Your task to perform on an android device: Open Google Maps Image 0: 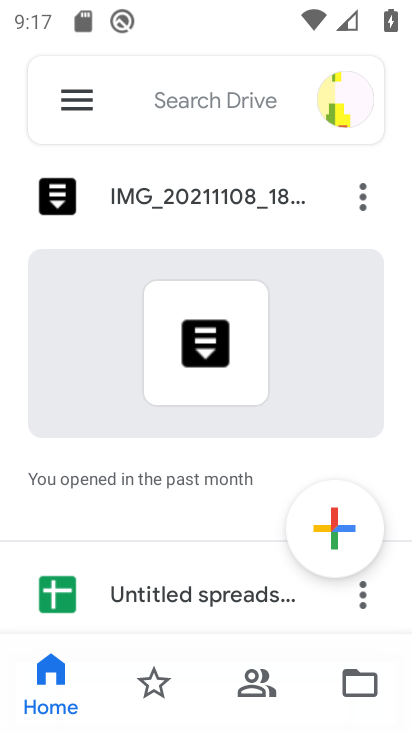
Step 0: drag from (187, 510) to (279, 217)
Your task to perform on an android device: Open Google Maps Image 1: 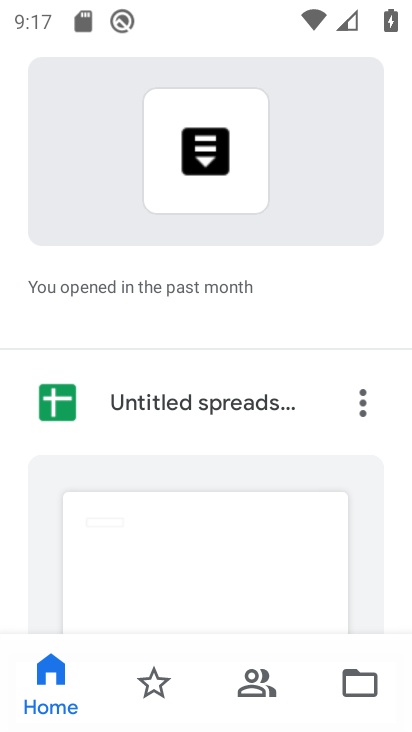
Step 1: drag from (110, 156) to (181, 667)
Your task to perform on an android device: Open Google Maps Image 2: 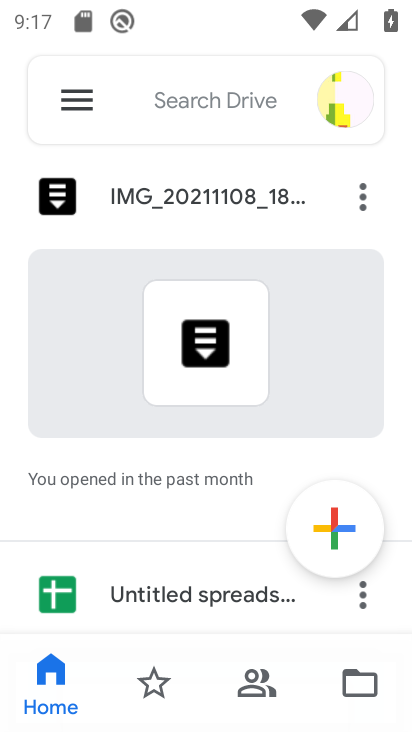
Step 2: press home button
Your task to perform on an android device: Open Google Maps Image 3: 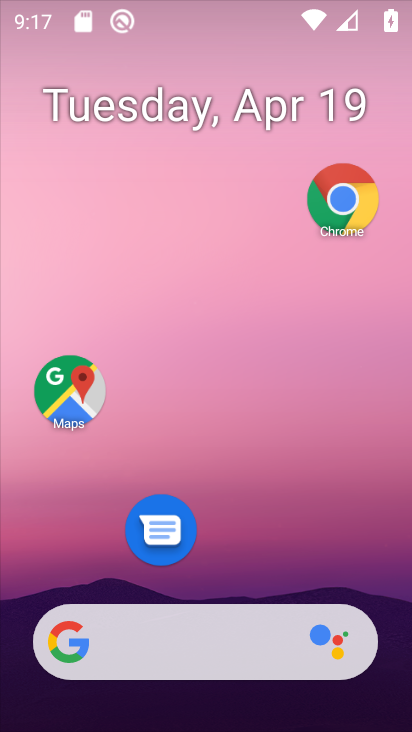
Step 3: drag from (205, 572) to (269, 1)
Your task to perform on an android device: Open Google Maps Image 4: 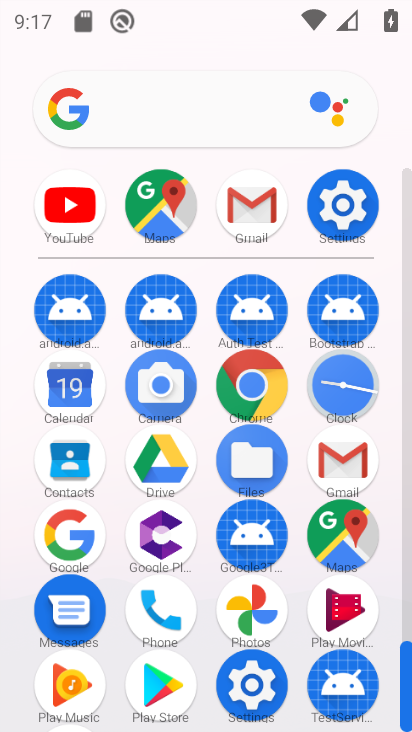
Step 4: drag from (214, 602) to (217, 208)
Your task to perform on an android device: Open Google Maps Image 5: 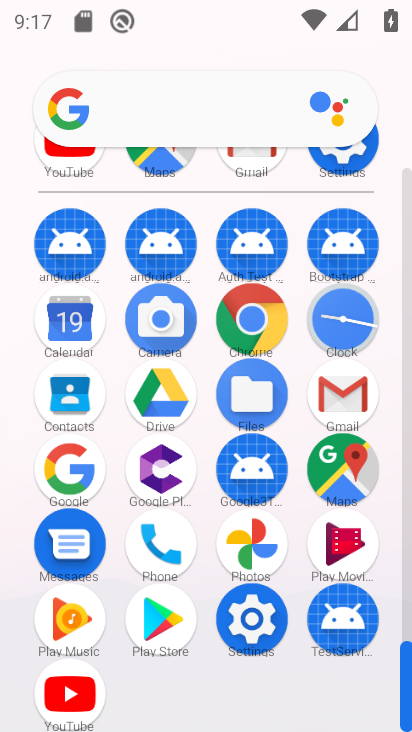
Step 5: click (338, 475)
Your task to perform on an android device: Open Google Maps Image 6: 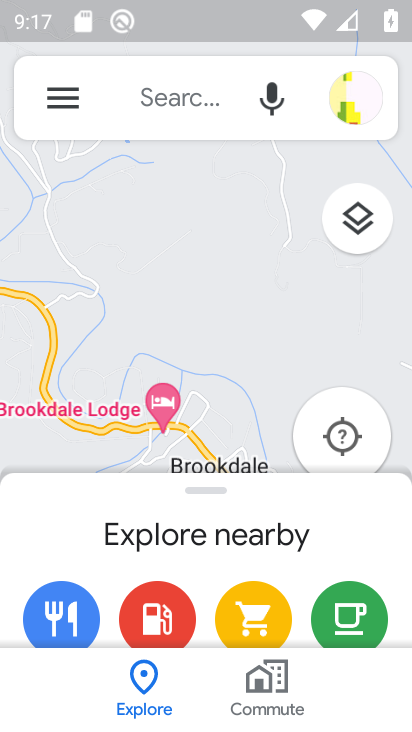
Step 6: drag from (216, 520) to (356, 164)
Your task to perform on an android device: Open Google Maps Image 7: 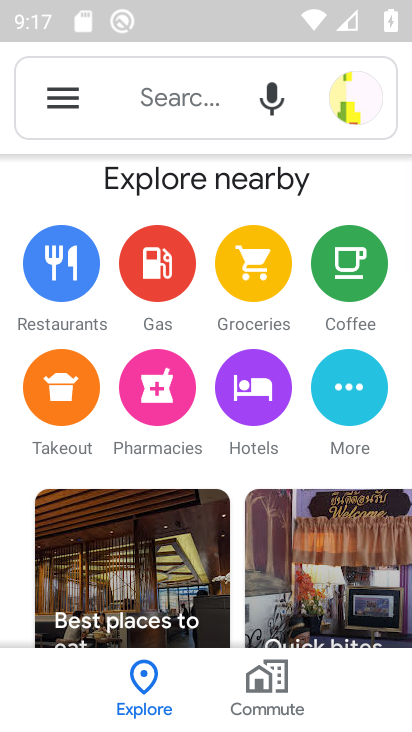
Step 7: drag from (235, 234) to (163, 709)
Your task to perform on an android device: Open Google Maps Image 8: 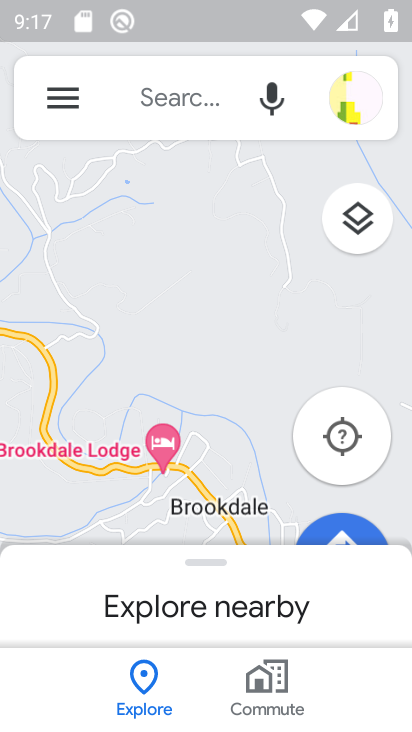
Step 8: drag from (224, 314) to (361, 703)
Your task to perform on an android device: Open Google Maps Image 9: 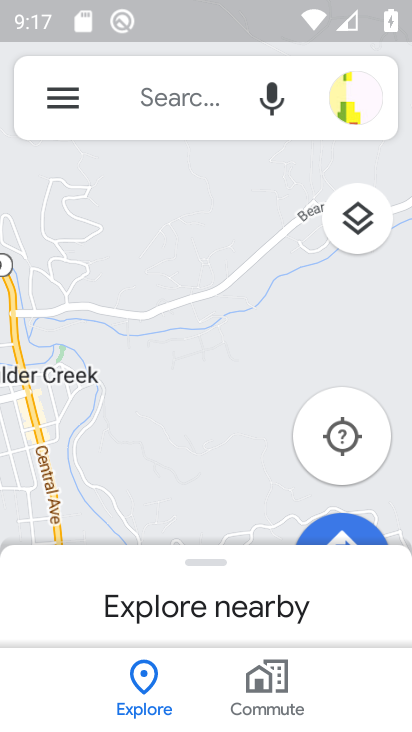
Step 9: drag from (193, 274) to (411, 307)
Your task to perform on an android device: Open Google Maps Image 10: 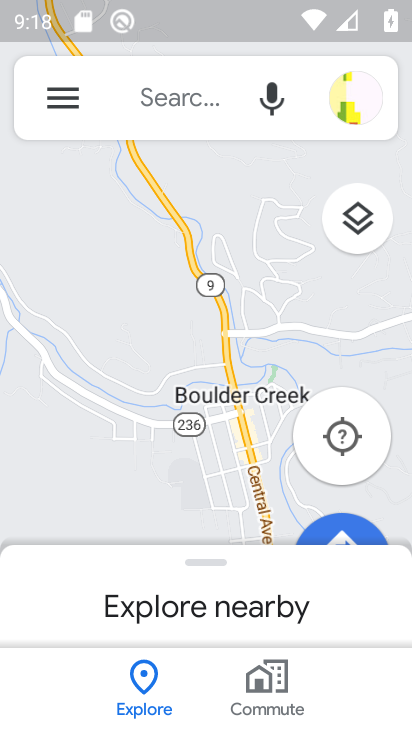
Step 10: drag from (162, 217) to (282, 445)
Your task to perform on an android device: Open Google Maps Image 11: 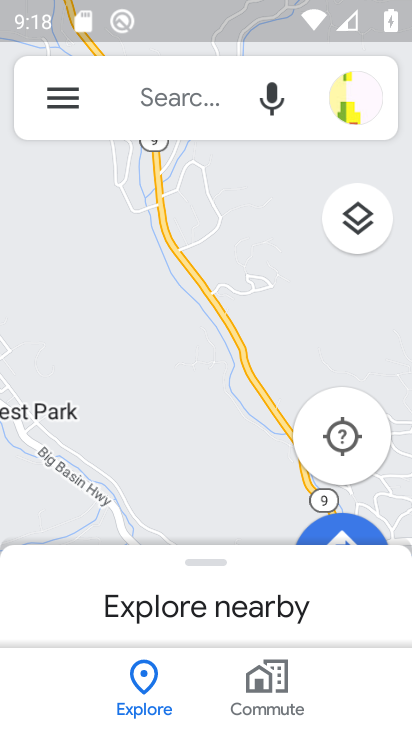
Step 11: drag from (185, 286) to (287, 511)
Your task to perform on an android device: Open Google Maps Image 12: 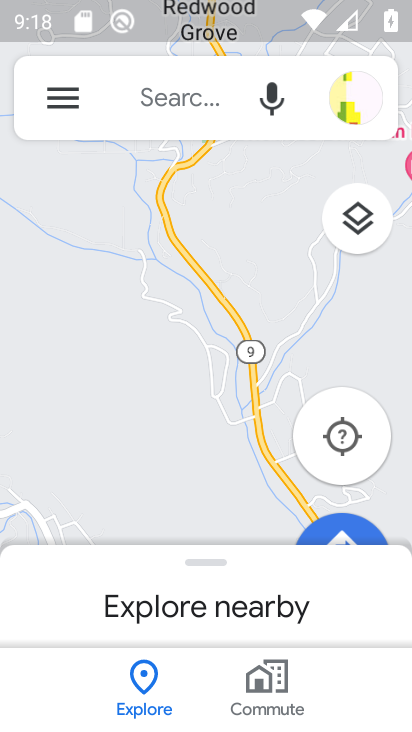
Step 12: drag from (229, 257) to (301, 452)
Your task to perform on an android device: Open Google Maps Image 13: 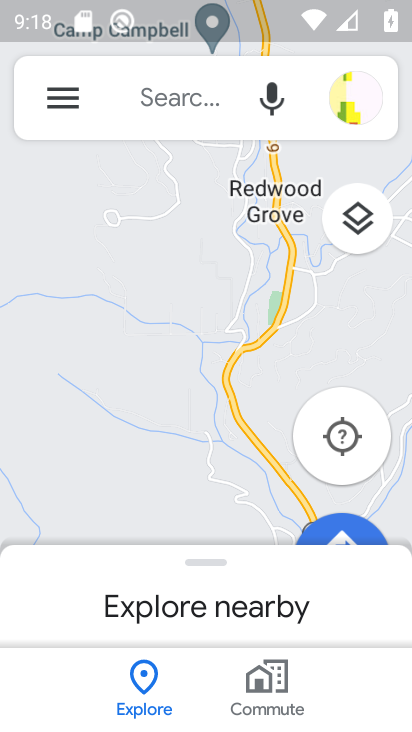
Step 13: drag from (294, 219) to (241, 523)
Your task to perform on an android device: Open Google Maps Image 14: 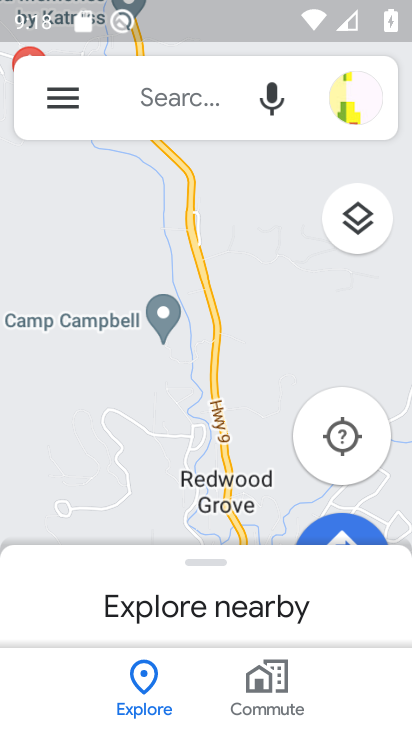
Step 14: drag from (182, 182) to (252, 526)
Your task to perform on an android device: Open Google Maps Image 15: 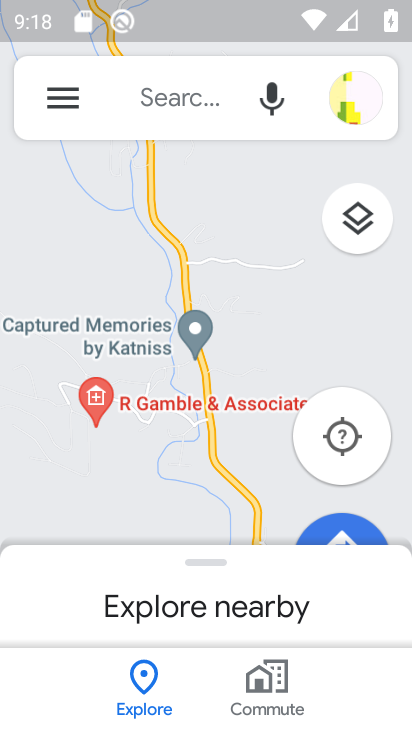
Step 15: drag from (158, 224) to (274, 447)
Your task to perform on an android device: Open Google Maps Image 16: 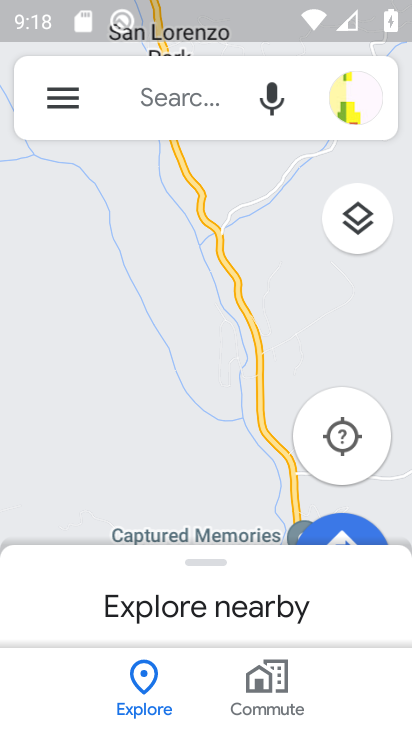
Step 16: drag from (259, 410) to (248, 215)
Your task to perform on an android device: Open Google Maps Image 17: 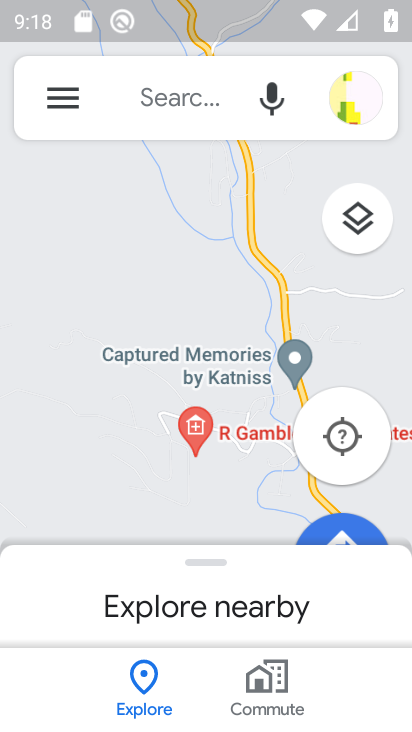
Step 17: drag from (283, 317) to (198, 225)
Your task to perform on an android device: Open Google Maps Image 18: 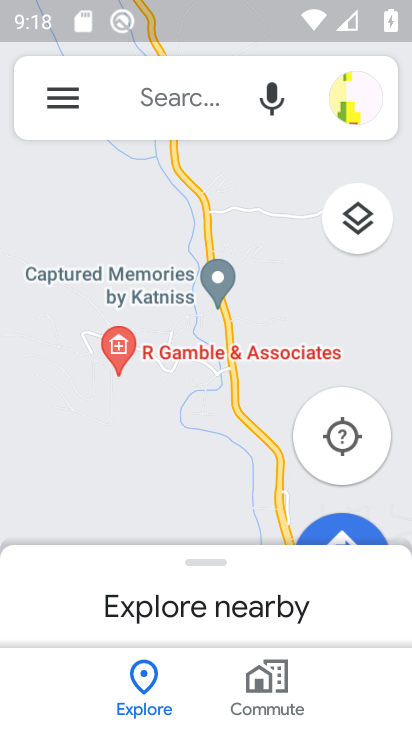
Step 18: drag from (232, 392) to (223, 267)
Your task to perform on an android device: Open Google Maps Image 19: 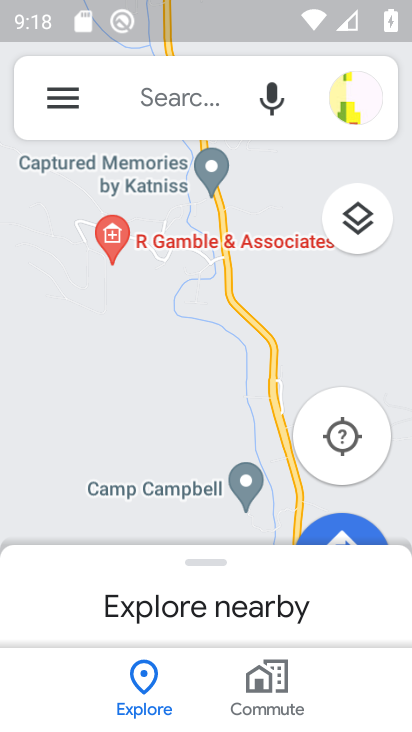
Step 19: drag from (216, 217) to (234, 350)
Your task to perform on an android device: Open Google Maps Image 20: 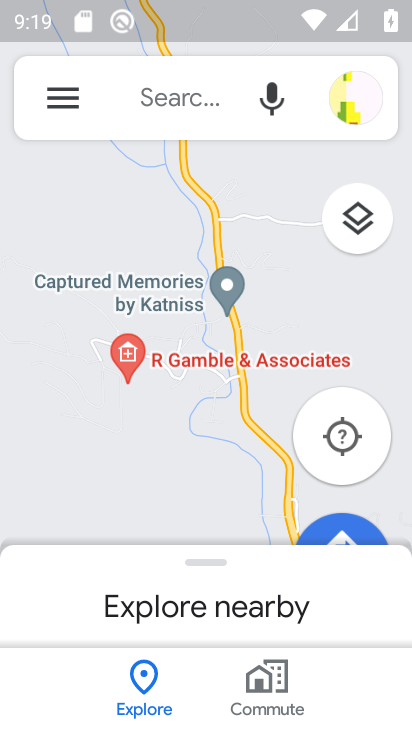
Step 20: click (43, 110)
Your task to perform on an android device: Open Google Maps Image 21: 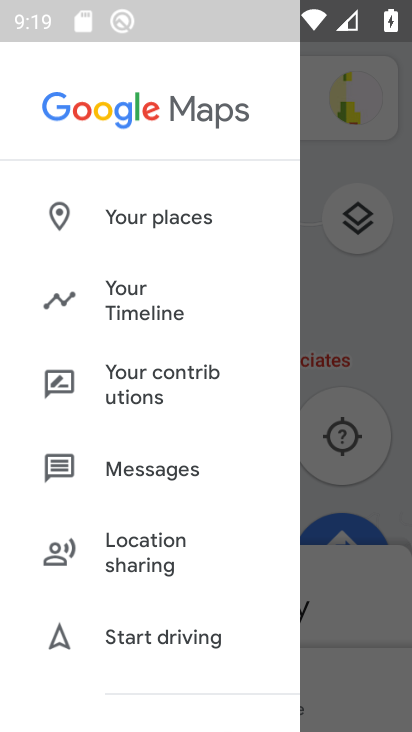
Step 21: drag from (130, 641) to (234, 195)
Your task to perform on an android device: Open Google Maps Image 22: 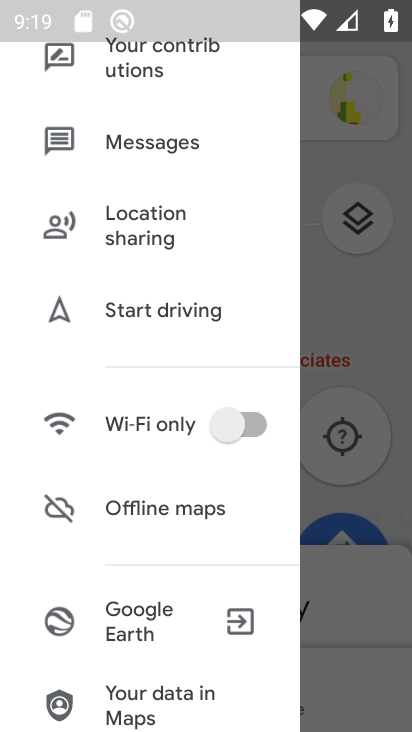
Step 22: drag from (140, 631) to (222, 228)
Your task to perform on an android device: Open Google Maps Image 23: 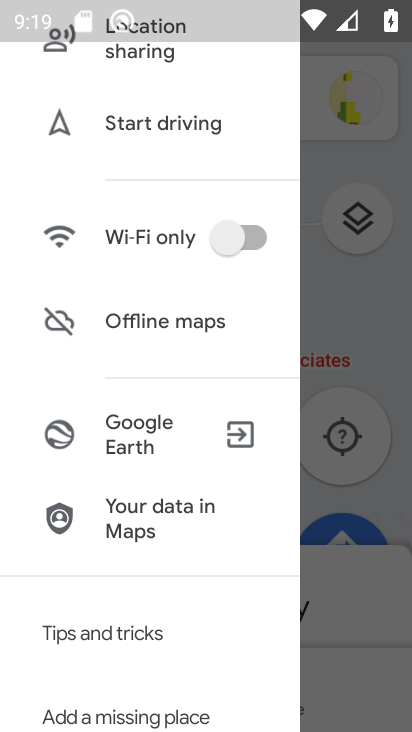
Step 23: drag from (152, 632) to (249, 285)
Your task to perform on an android device: Open Google Maps Image 24: 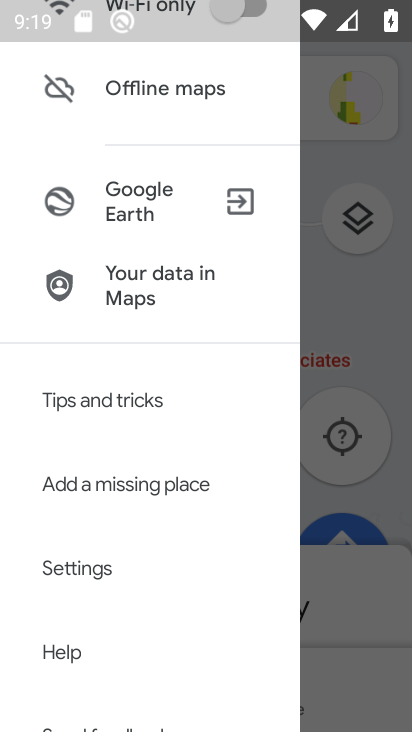
Step 24: drag from (103, 608) to (192, 272)
Your task to perform on an android device: Open Google Maps Image 25: 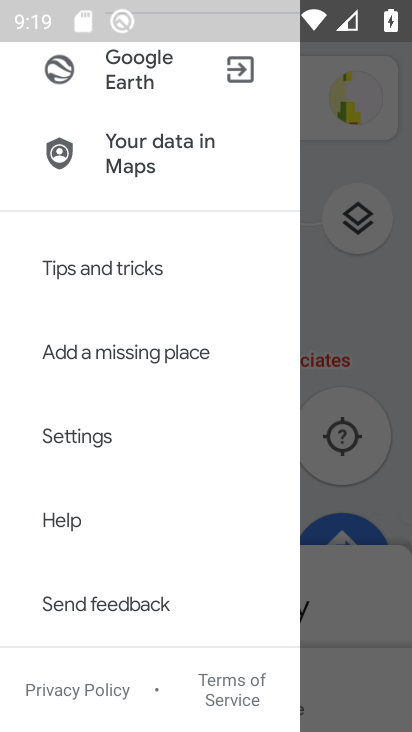
Step 25: drag from (142, 292) to (194, 636)
Your task to perform on an android device: Open Google Maps Image 26: 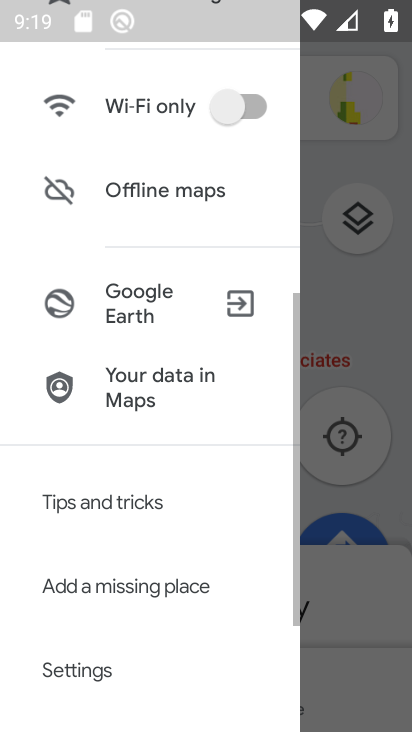
Step 26: drag from (166, 523) to (239, 145)
Your task to perform on an android device: Open Google Maps Image 27: 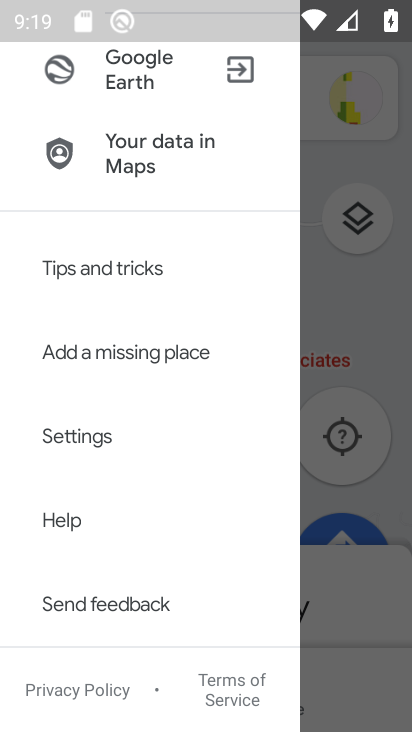
Step 27: drag from (160, 286) to (252, 209)
Your task to perform on an android device: Open Google Maps Image 28: 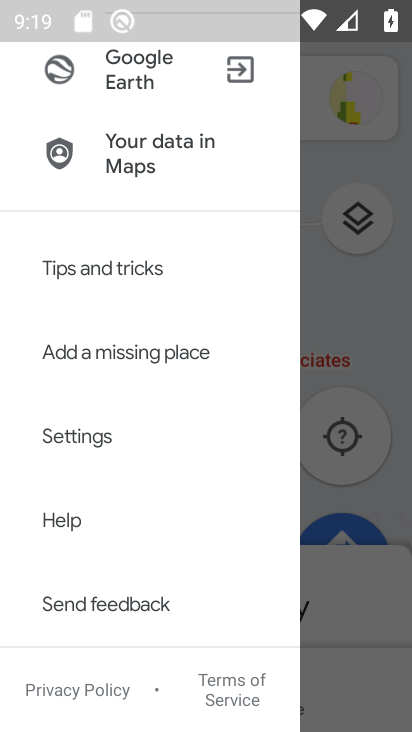
Step 28: click (363, 313)
Your task to perform on an android device: Open Google Maps Image 29: 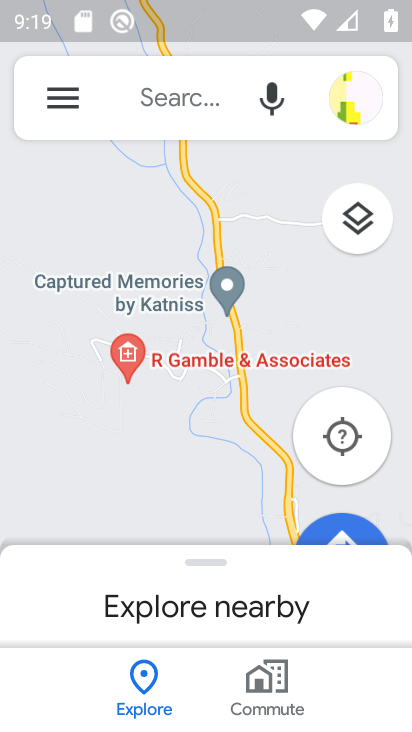
Step 29: task complete